Your task to perform on an android device: Open CNN.com Image 0: 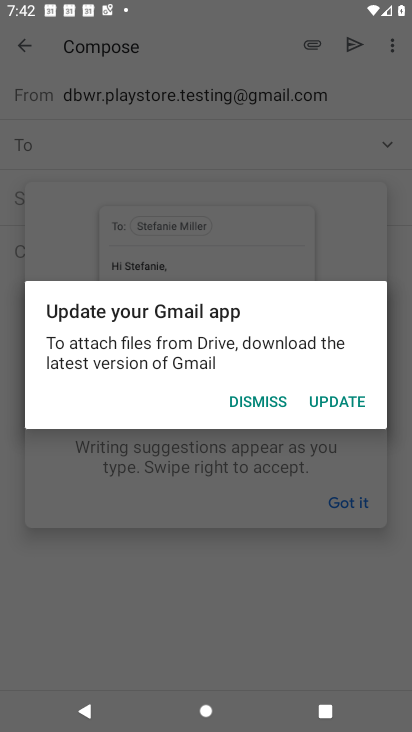
Step 0: press home button
Your task to perform on an android device: Open CNN.com Image 1: 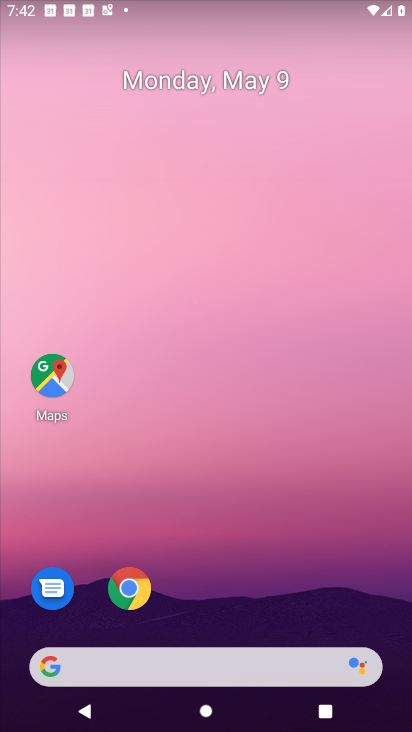
Step 1: drag from (207, 666) to (345, 208)
Your task to perform on an android device: Open CNN.com Image 2: 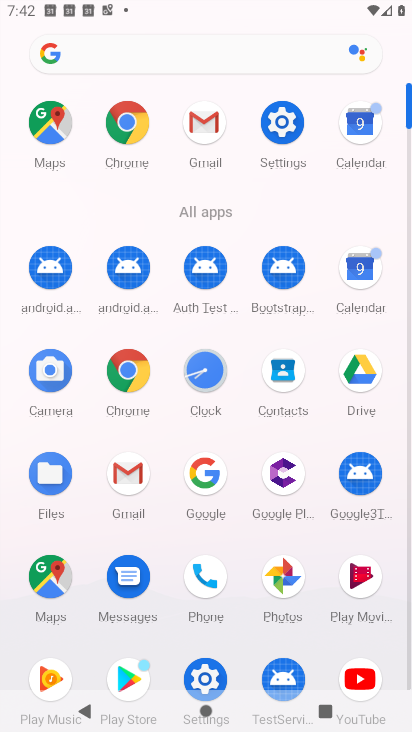
Step 2: click (127, 125)
Your task to perform on an android device: Open CNN.com Image 3: 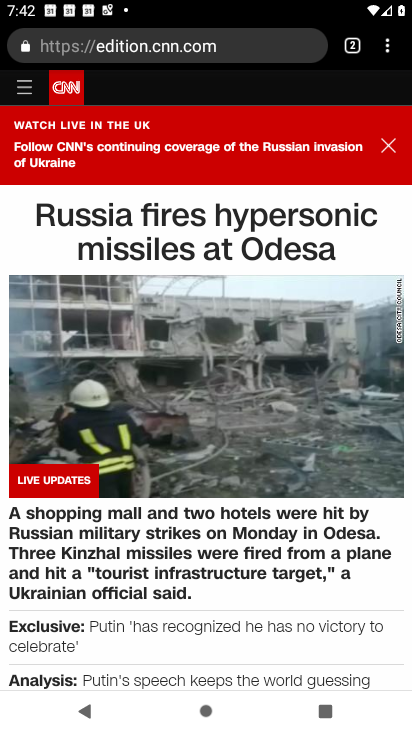
Step 3: click (239, 47)
Your task to perform on an android device: Open CNN.com Image 4: 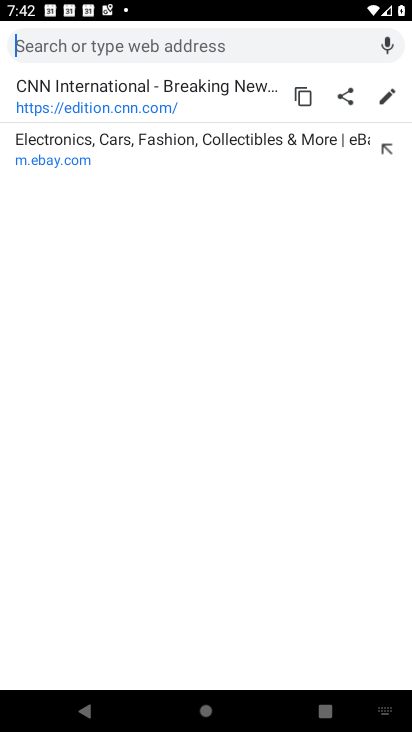
Step 4: type "cnn.com"
Your task to perform on an android device: Open CNN.com Image 5: 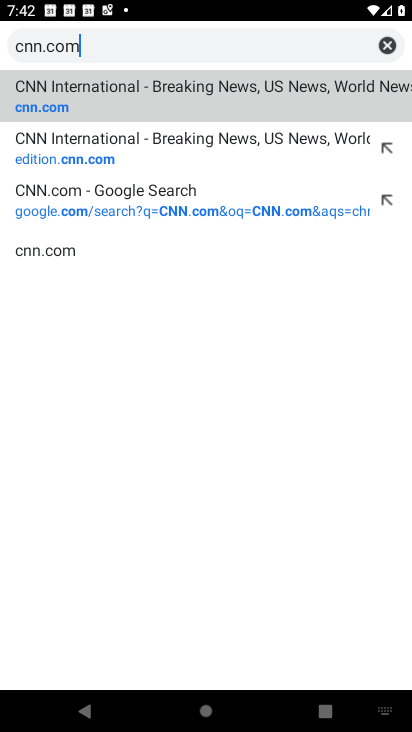
Step 5: click (56, 252)
Your task to perform on an android device: Open CNN.com Image 6: 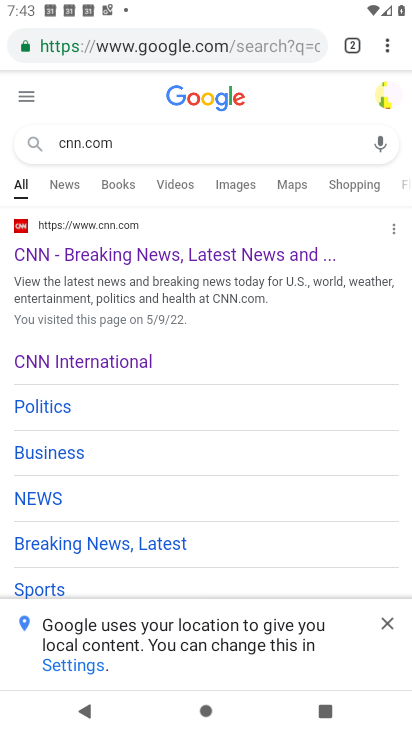
Step 6: click (166, 253)
Your task to perform on an android device: Open CNN.com Image 7: 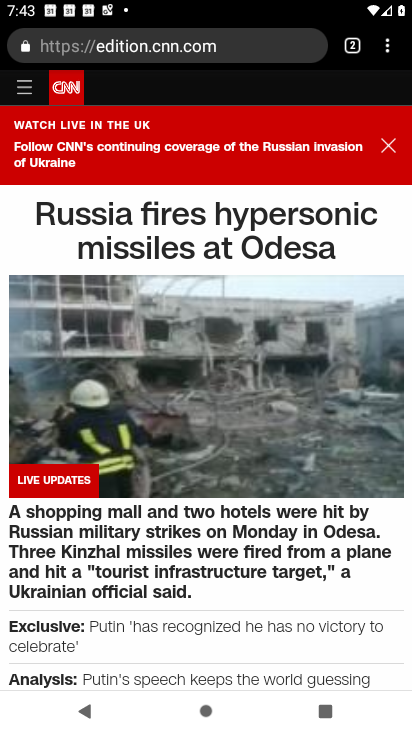
Step 7: task complete